Your task to perform on an android device: open a bookmark in the chrome app Image 0: 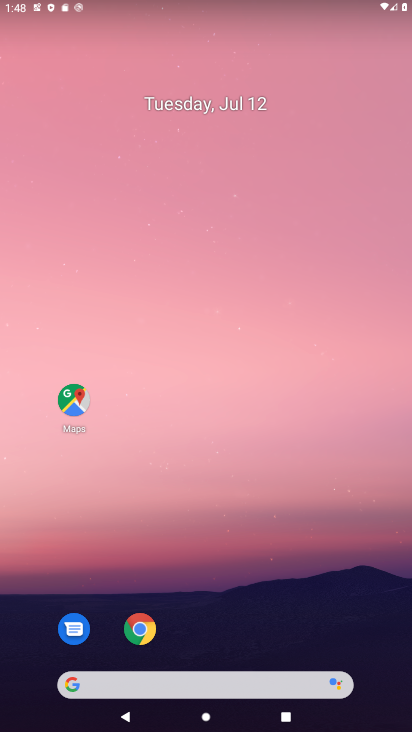
Step 0: drag from (308, 626) to (311, 41)
Your task to perform on an android device: open a bookmark in the chrome app Image 1: 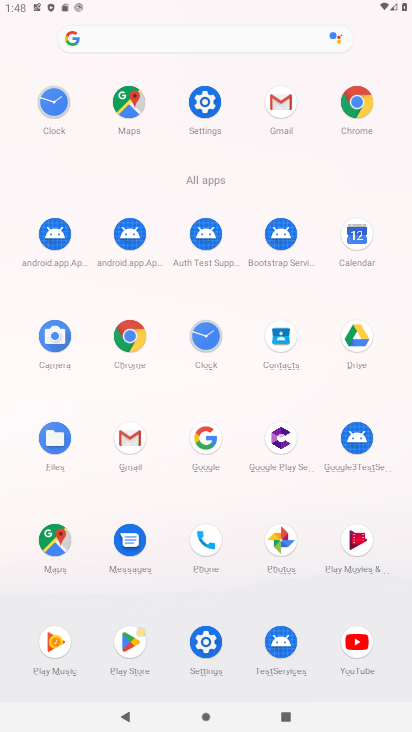
Step 1: click (364, 105)
Your task to perform on an android device: open a bookmark in the chrome app Image 2: 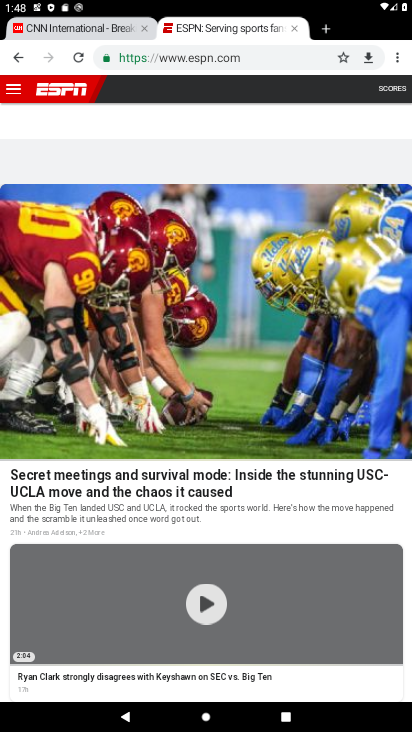
Step 2: click (392, 55)
Your task to perform on an android device: open a bookmark in the chrome app Image 3: 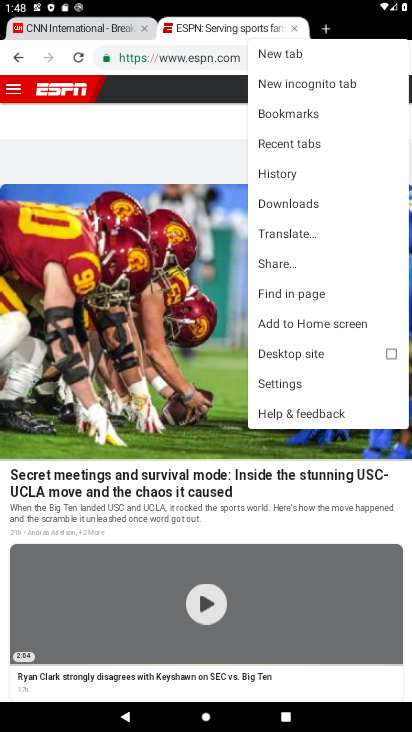
Step 3: click (340, 112)
Your task to perform on an android device: open a bookmark in the chrome app Image 4: 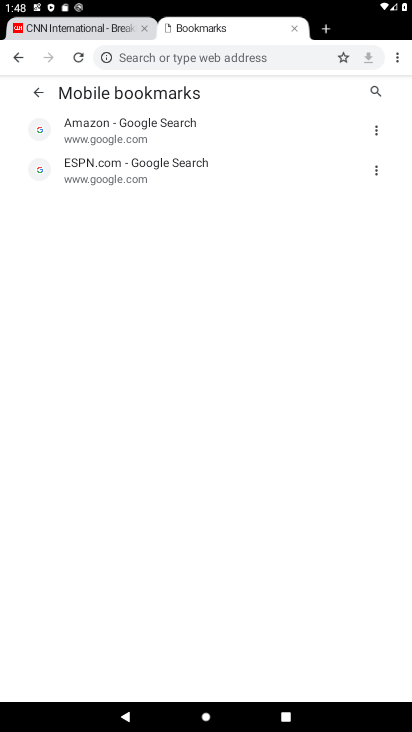
Step 4: click (198, 123)
Your task to perform on an android device: open a bookmark in the chrome app Image 5: 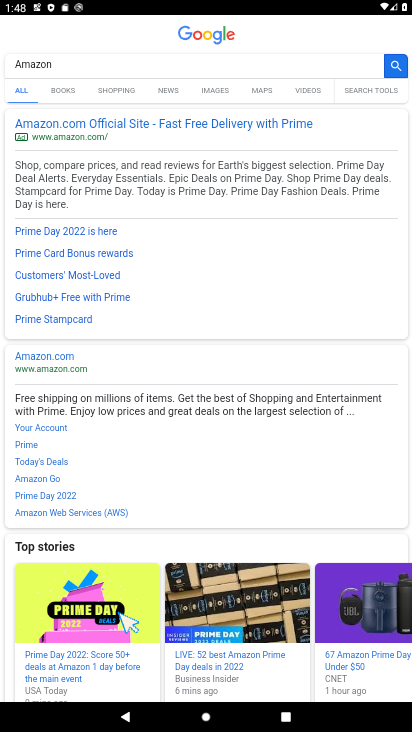
Step 5: task complete